Your task to perform on an android device: set the stopwatch Image 0: 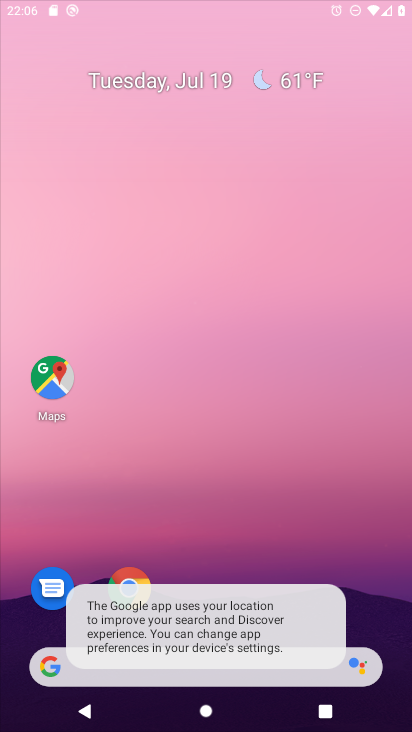
Step 0: press home button
Your task to perform on an android device: set the stopwatch Image 1: 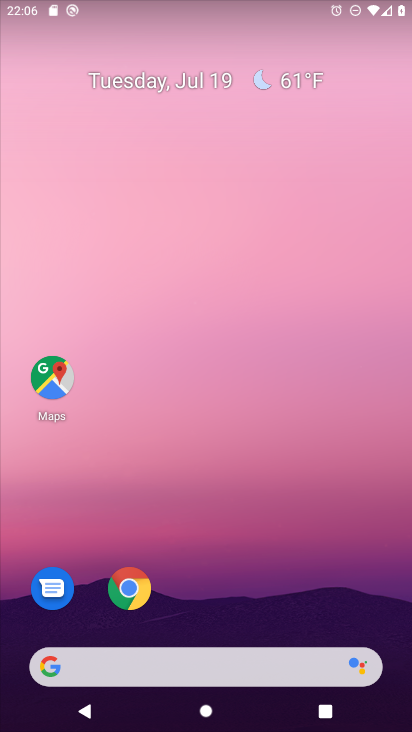
Step 1: drag from (213, 630) to (230, 4)
Your task to perform on an android device: set the stopwatch Image 2: 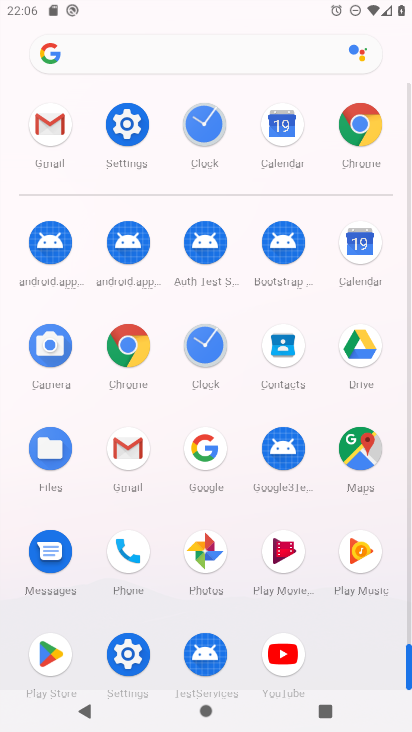
Step 2: click (199, 116)
Your task to perform on an android device: set the stopwatch Image 3: 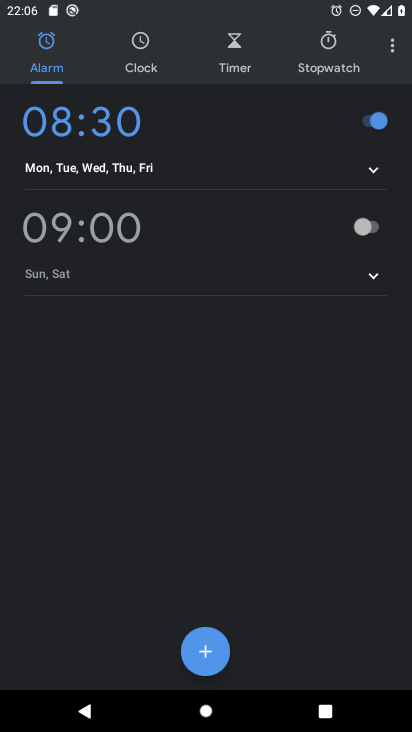
Step 3: click (331, 37)
Your task to perform on an android device: set the stopwatch Image 4: 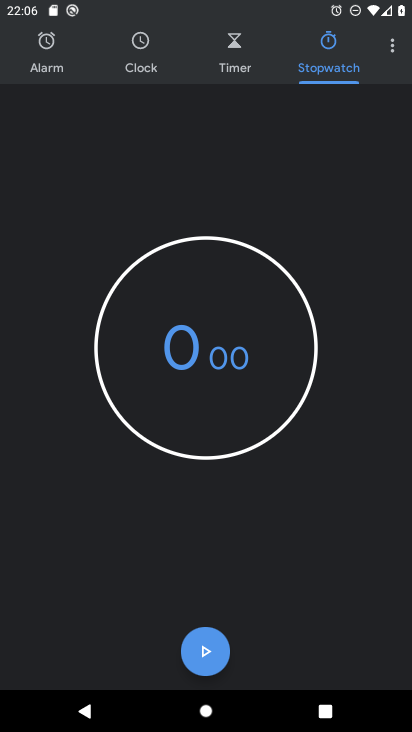
Step 4: click (204, 648)
Your task to perform on an android device: set the stopwatch Image 5: 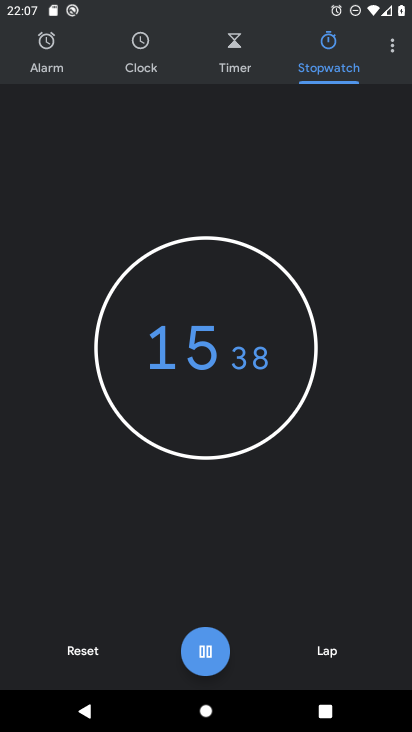
Step 5: task complete